Your task to perform on an android device: View the shopping cart on amazon.com. Image 0: 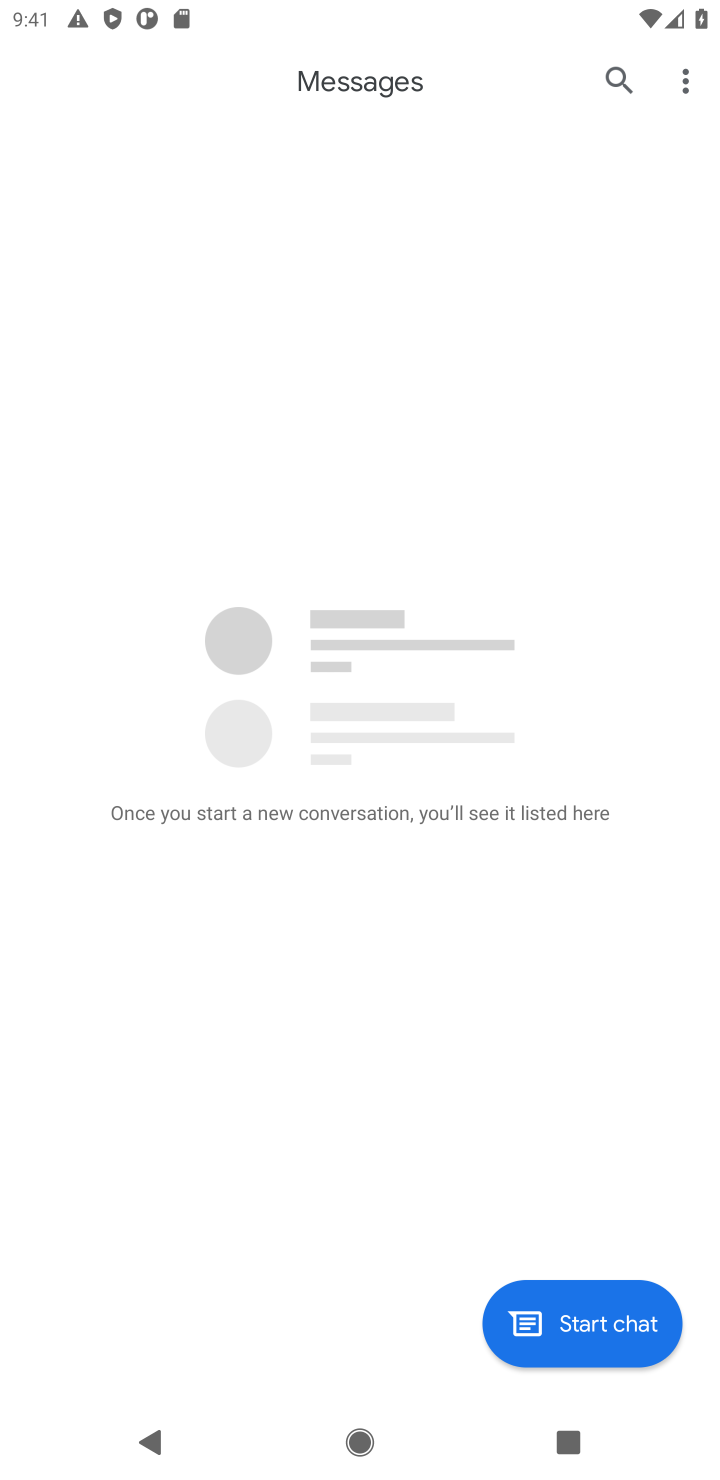
Step 0: task complete